Your task to perform on an android device: turn notification dots off Image 0: 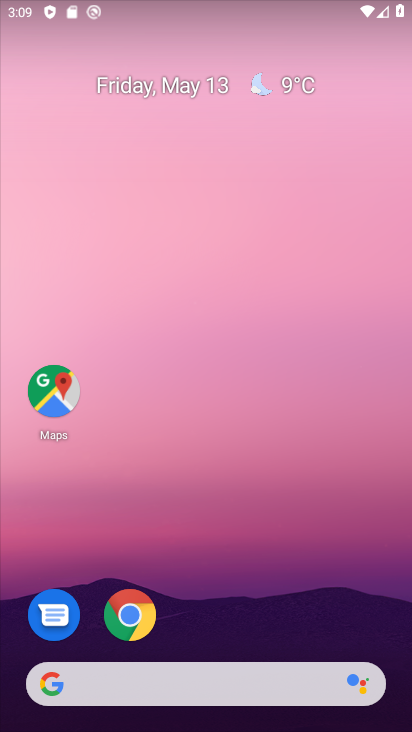
Step 0: drag from (262, 624) to (145, 5)
Your task to perform on an android device: turn notification dots off Image 1: 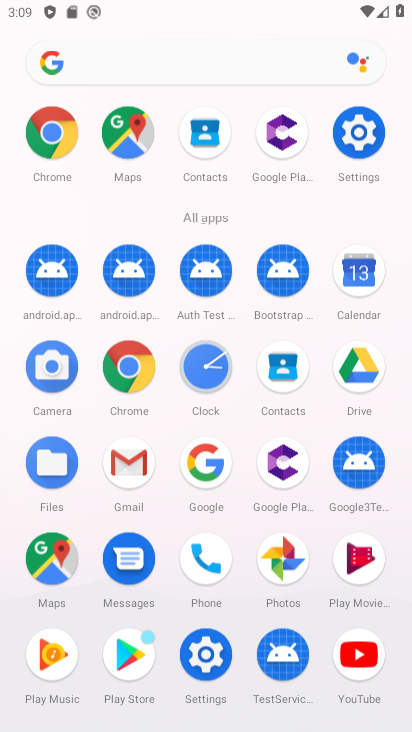
Step 1: drag from (256, 540) to (169, 3)
Your task to perform on an android device: turn notification dots off Image 2: 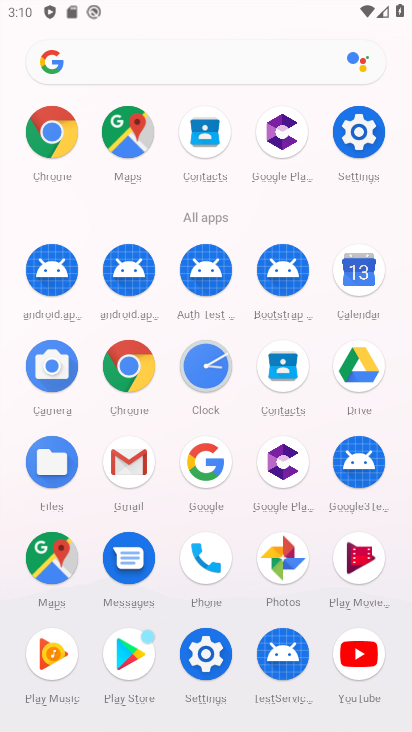
Step 2: click (359, 135)
Your task to perform on an android device: turn notification dots off Image 3: 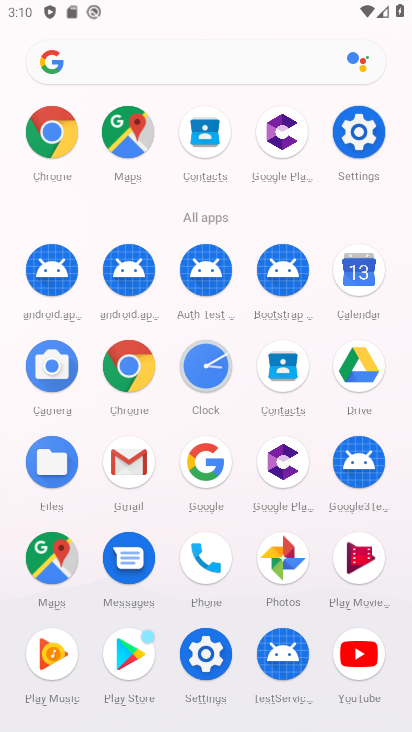
Step 3: click (359, 135)
Your task to perform on an android device: turn notification dots off Image 4: 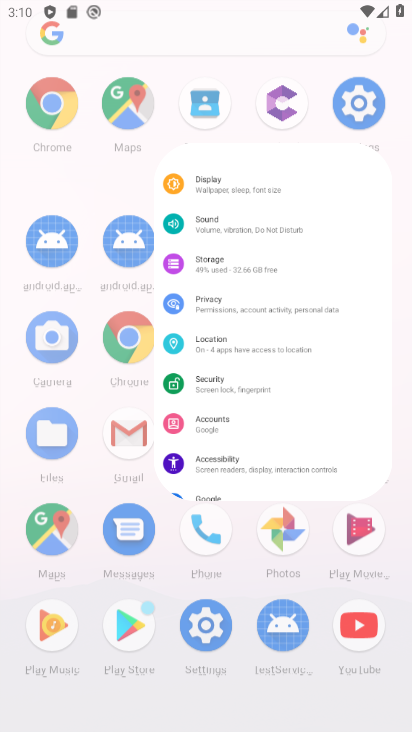
Step 4: click (359, 135)
Your task to perform on an android device: turn notification dots off Image 5: 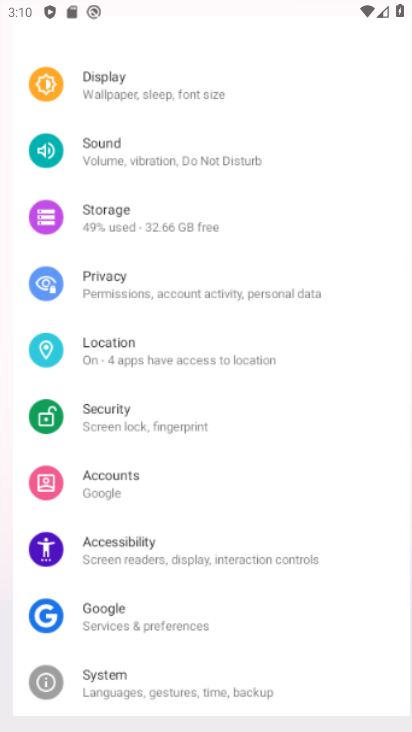
Step 5: click (359, 135)
Your task to perform on an android device: turn notification dots off Image 6: 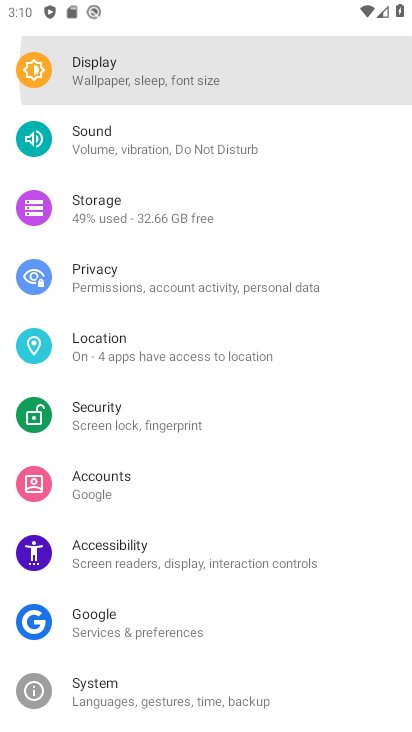
Step 6: click (361, 139)
Your task to perform on an android device: turn notification dots off Image 7: 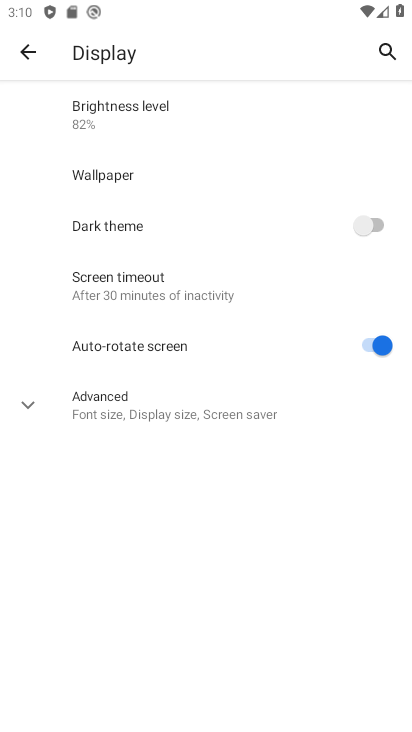
Step 7: click (23, 50)
Your task to perform on an android device: turn notification dots off Image 8: 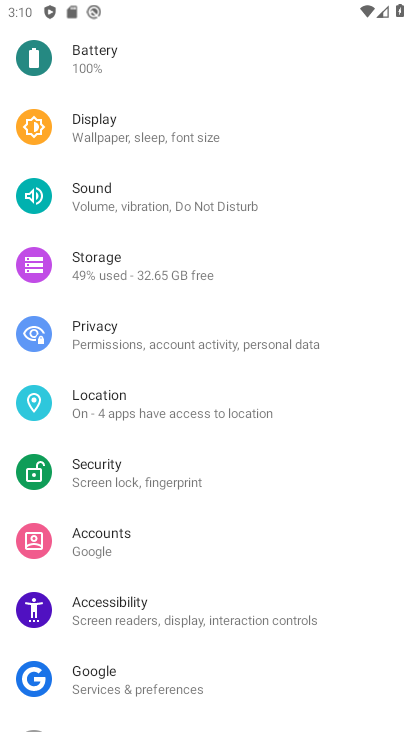
Step 8: drag from (93, 185) to (154, 442)
Your task to perform on an android device: turn notification dots off Image 9: 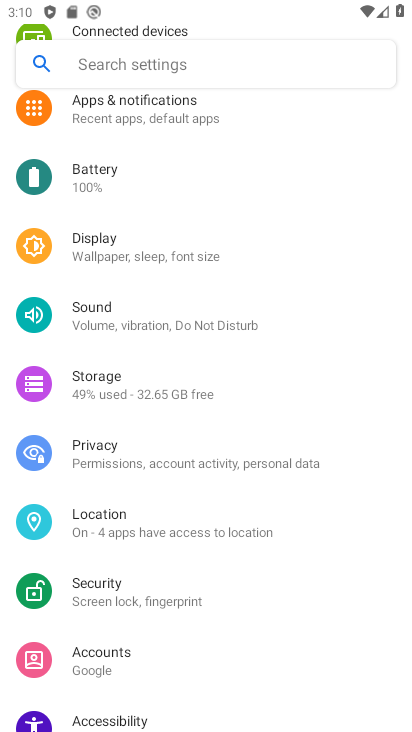
Step 9: drag from (132, 231) to (165, 513)
Your task to perform on an android device: turn notification dots off Image 10: 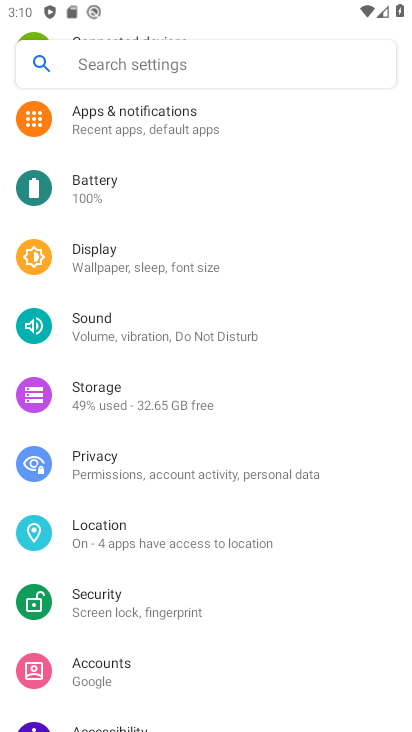
Step 10: click (117, 121)
Your task to perform on an android device: turn notification dots off Image 11: 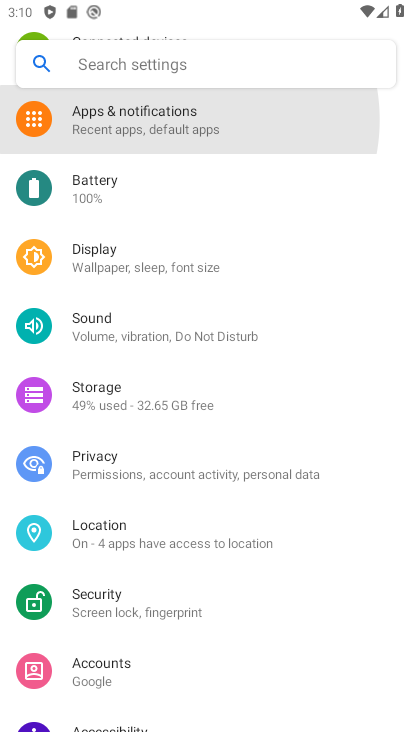
Step 11: click (120, 123)
Your task to perform on an android device: turn notification dots off Image 12: 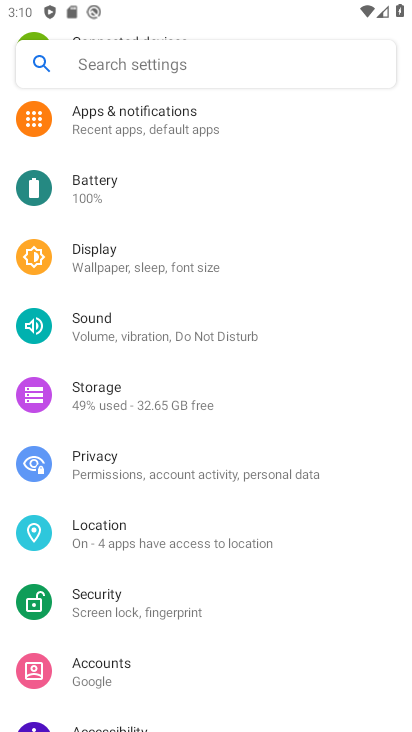
Step 12: click (140, 126)
Your task to perform on an android device: turn notification dots off Image 13: 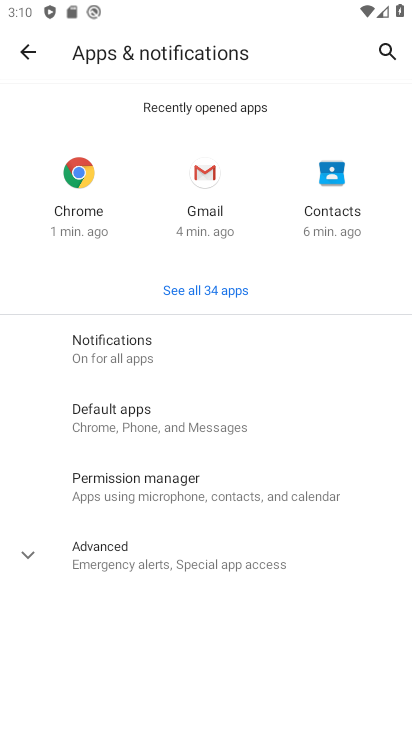
Step 13: click (124, 341)
Your task to perform on an android device: turn notification dots off Image 14: 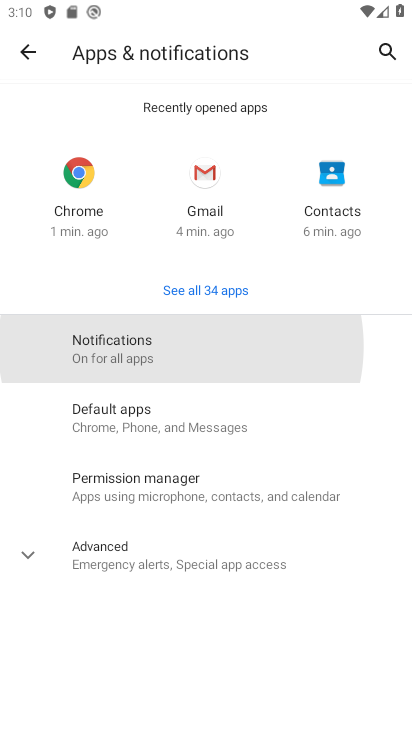
Step 14: click (123, 342)
Your task to perform on an android device: turn notification dots off Image 15: 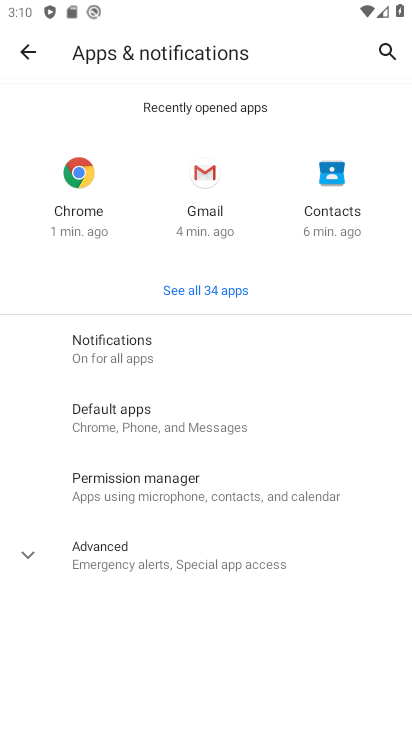
Step 15: click (117, 360)
Your task to perform on an android device: turn notification dots off Image 16: 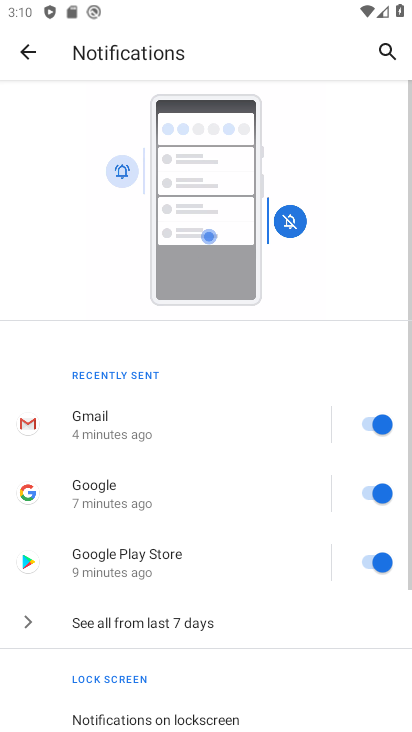
Step 16: drag from (155, 526) to (133, 141)
Your task to perform on an android device: turn notification dots off Image 17: 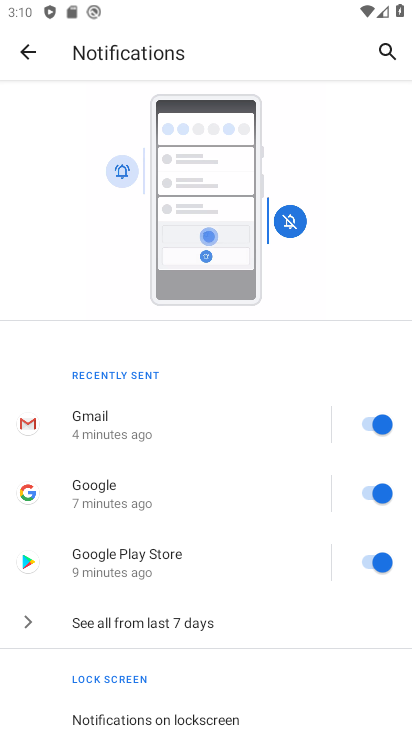
Step 17: drag from (191, 408) to (105, 70)
Your task to perform on an android device: turn notification dots off Image 18: 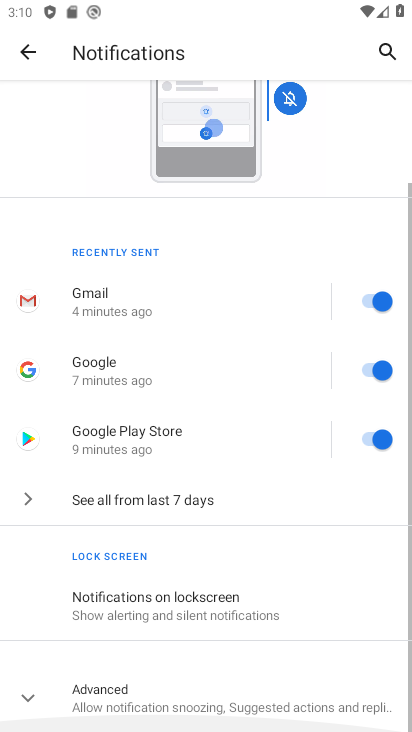
Step 18: drag from (90, 415) to (74, 108)
Your task to perform on an android device: turn notification dots off Image 19: 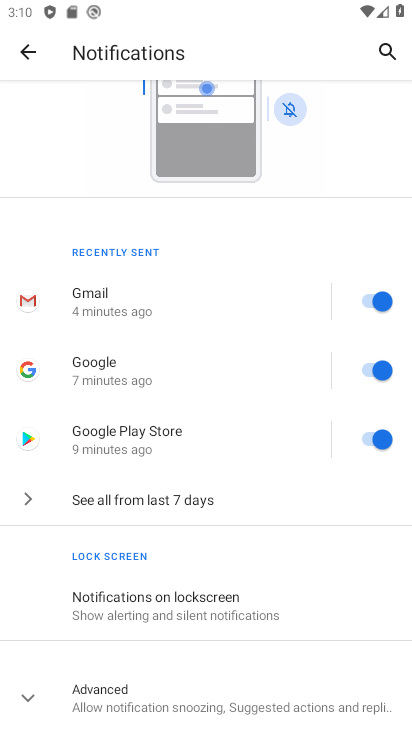
Step 19: click (140, 692)
Your task to perform on an android device: turn notification dots off Image 20: 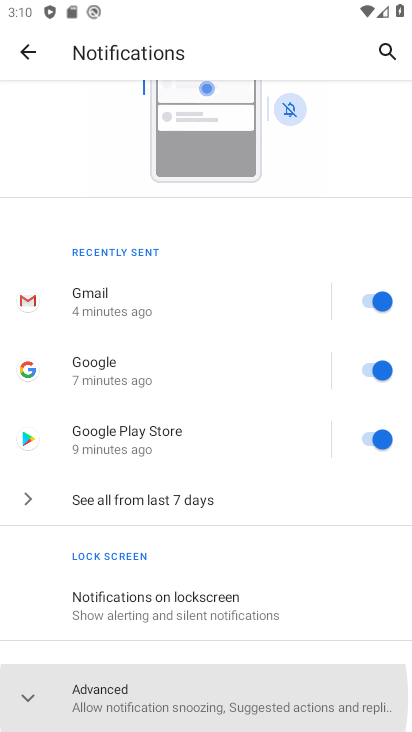
Step 20: click (141, 690)
Your task to perform on an android device: turn notification dots off Image 21: 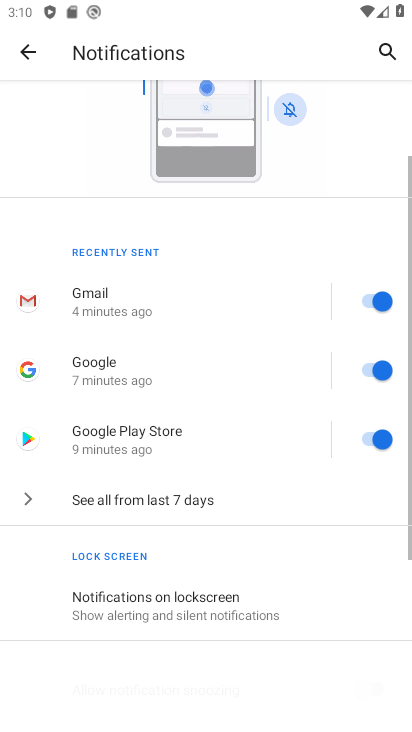
Step 21: click (136, 685)
Your task to perform on an android device: turn notification dots off Image 22: 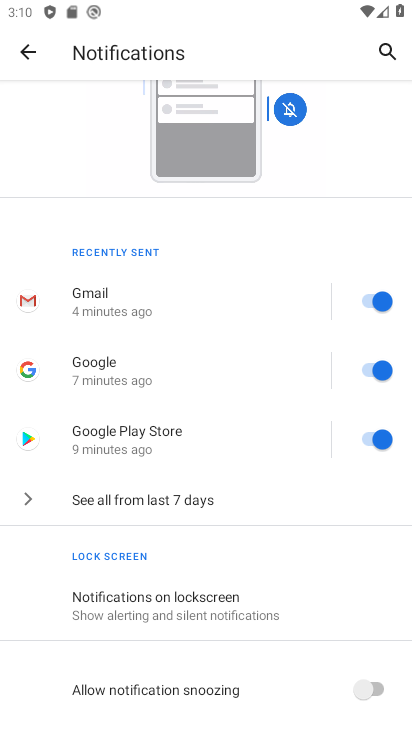
Step 22: drag from (219, 551) to (159, 17)
Your task to perform on an android device: turn notification dots off Image 23: 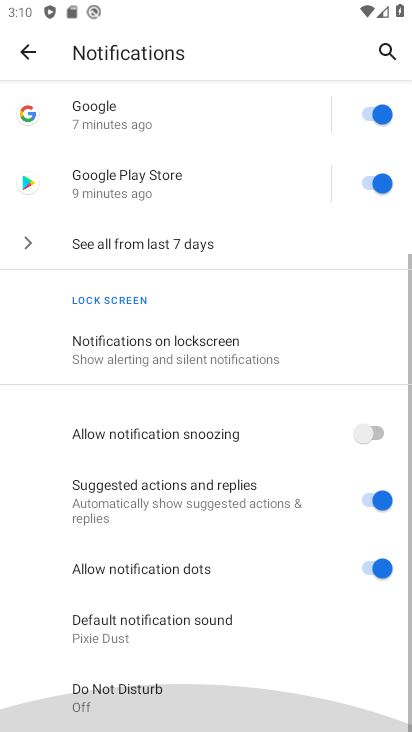
Step 23: drag from (161, 371) to (142, 26)
Your task to perform on an android device: turn notification dots off Image 24: 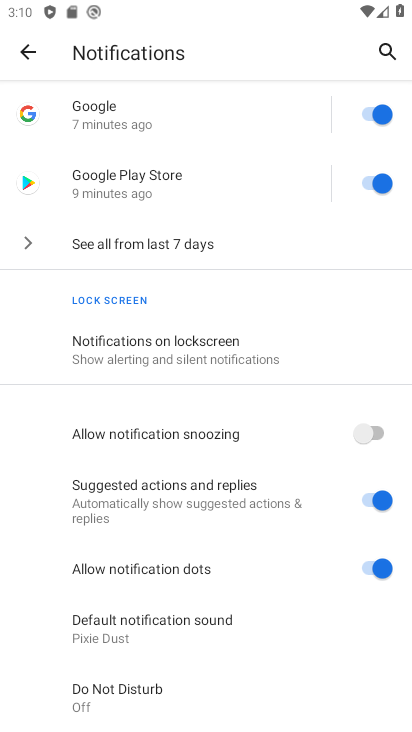
Step 24: click (374, 569)
Your task to perform on an android device: turn notification dots off Image 25: 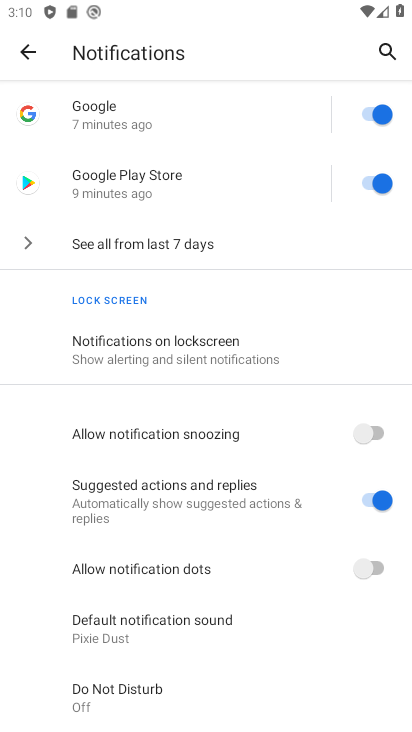
Step 25: task complete